Your task to perform on an android device: Open Google Maps Image 0: 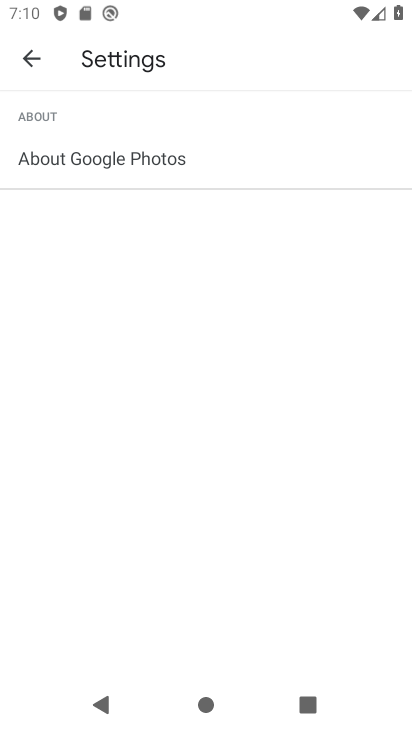
Step 0: press home button
Your task to perform on an android device: Open Google Maps Image 1: 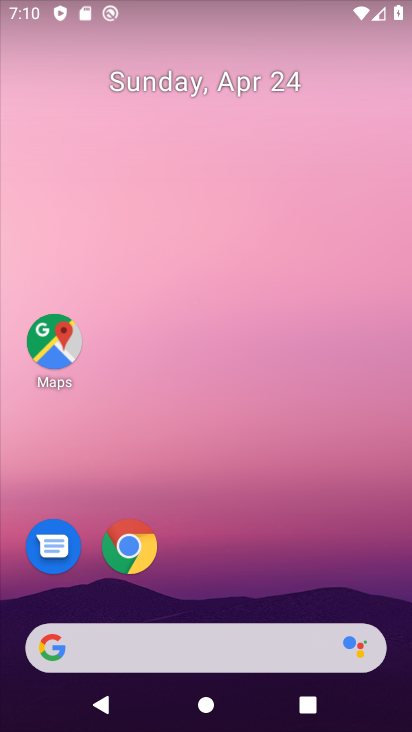
Step 1: click (63, 364)
Your task to perform on an android device: Open Google Maps Image 2: 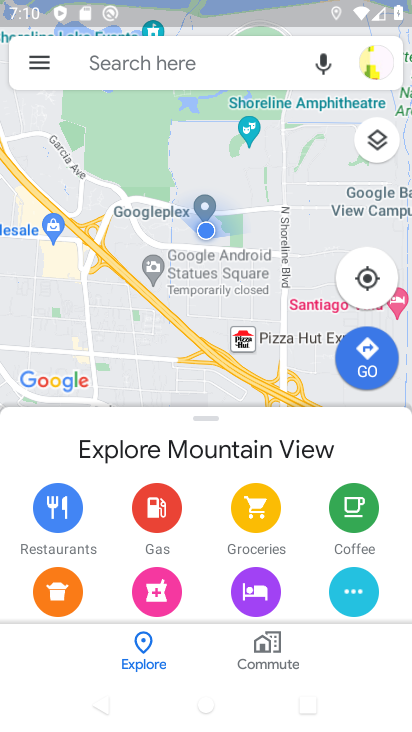
Step 2: task complete